Your task to perform on an android device: turn on javascript in the chrome app Image 0: 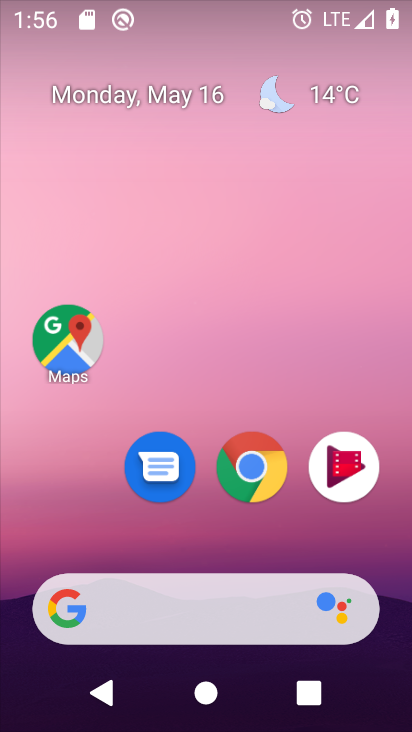
Step 0: click (248, 458)
Your task to perform on an android device: turn on javascript in the chrome app Image 1: 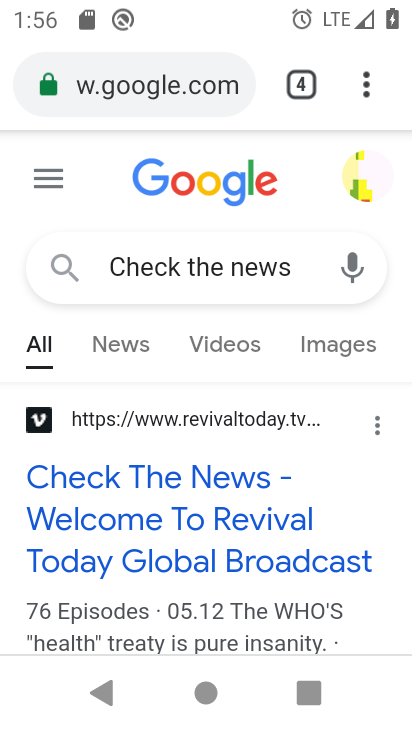
Step 1: click (346, 73)
Your task to perform on an android device: turn on javascript in the chrome app Image 2: 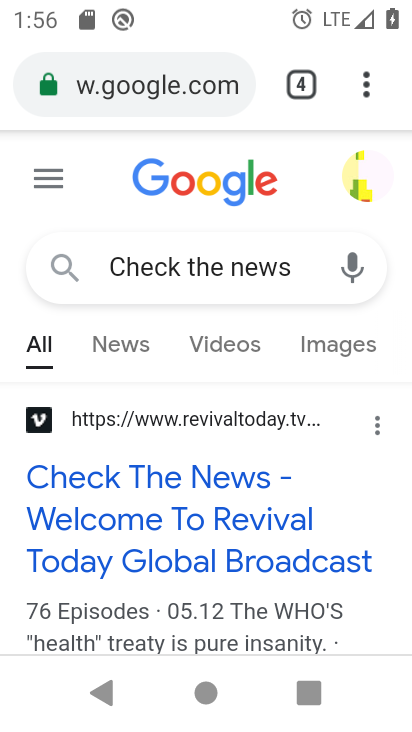
Step 2: click (343, 78)
Your task to perform on an android device: turn on javascript in the chrome app Image 3: 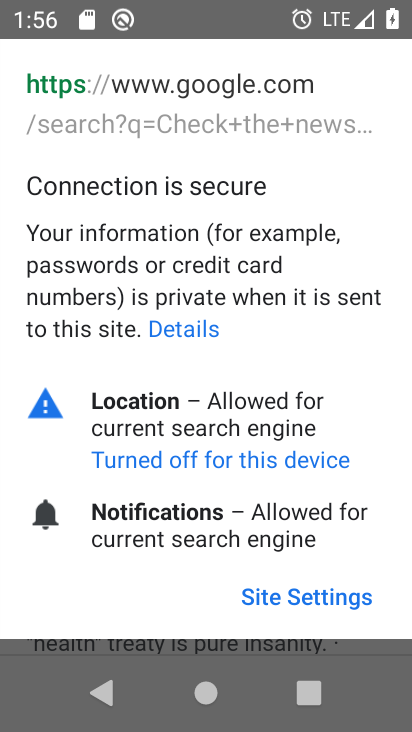
Step 3: press back button
Your task to perform on an android device: turn on javascript in the chrome app Image 4: 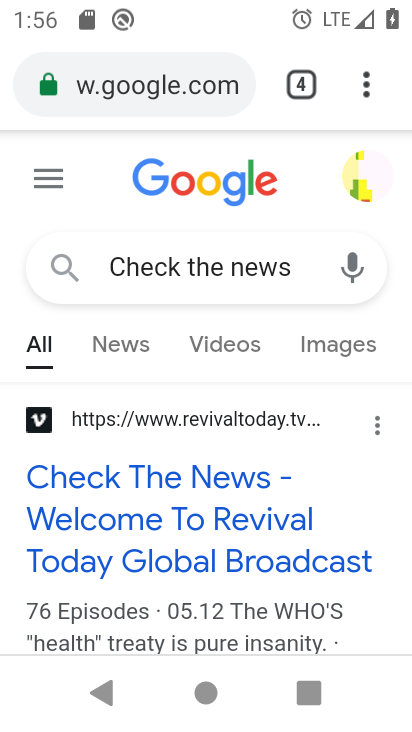
Step 4: click (376, 75)
Your task to perform on an android device: turn on javascript in the chrome app Image 5: 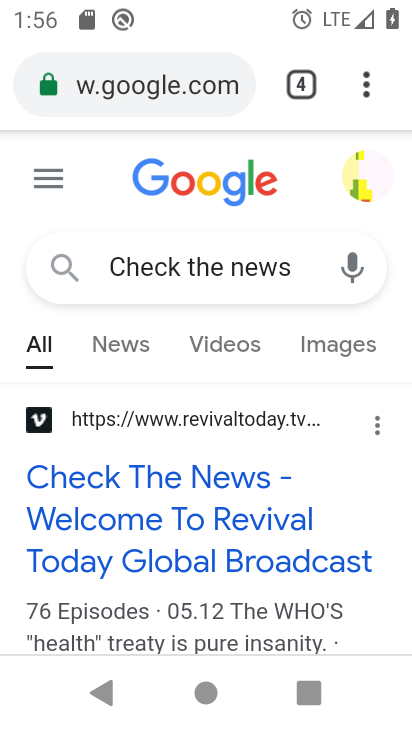
Step 5: click (386, 78)
Your task to perform on an android device: turn on javascript in the chrome app Image 6: 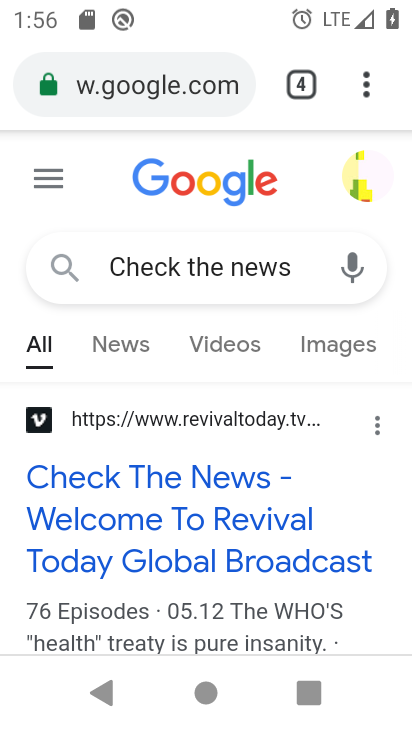
Step 6: click (336, 75)
Your task to perform on an android device: turn on javascript in the chrome app Image 7: 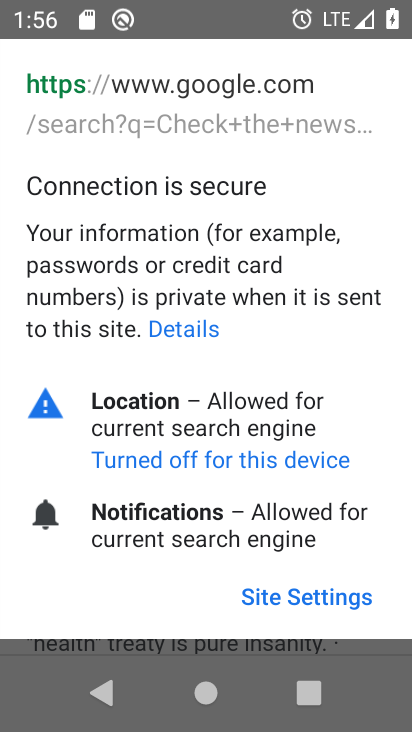
Step 7: press back button
Your task to perform on an android device: turn on javascript in the chrome app Image 8: 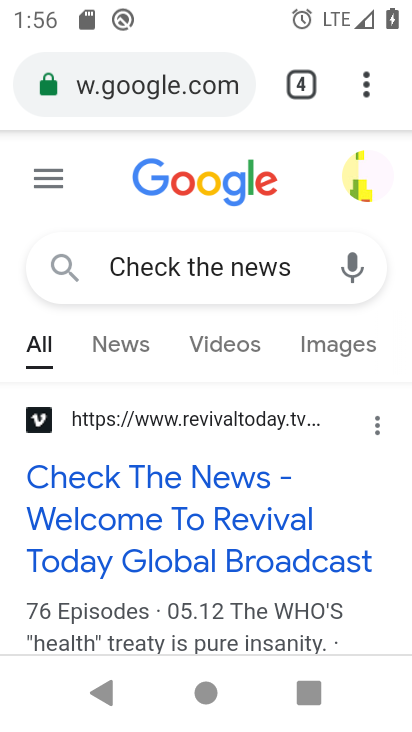
Step 8: click (347, 83)
Your task to perform on an android device: turn on javascript in the chrome app Image 9: 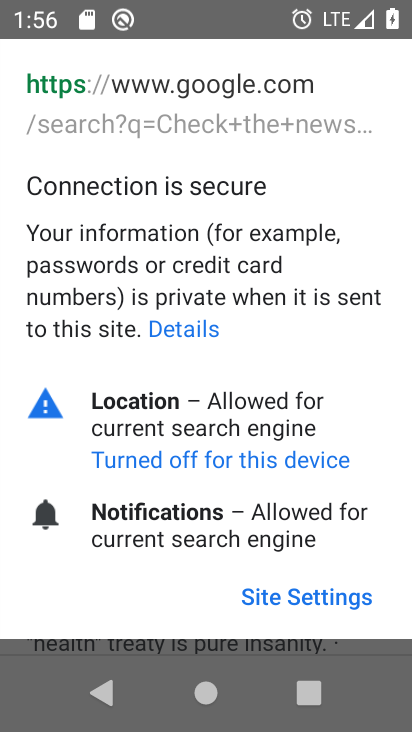
Step 9: press back button
Your task to perform on an android device: turn on javascript in the chrome app Image 10: 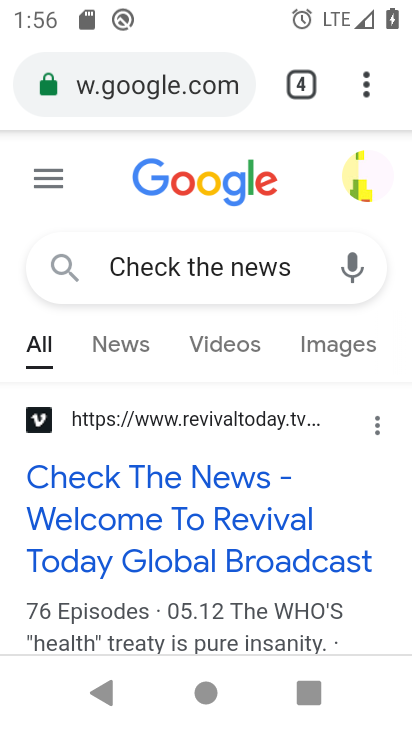
Step 10: click (376, 85)
Your task to perform on an android device: turn on javascript in the chrome app Image 11: 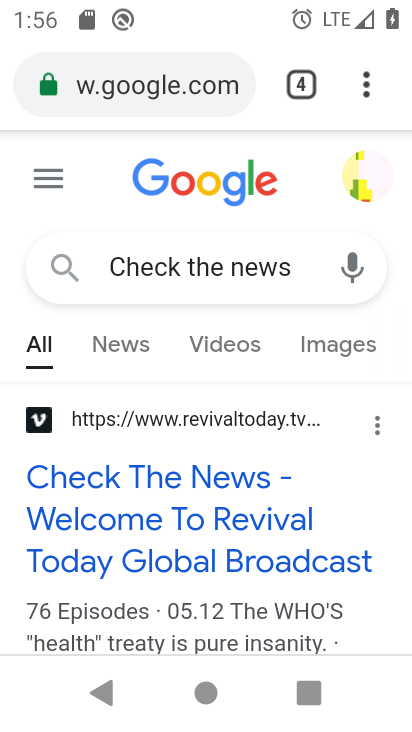
Step 11: click (376, 85)
Your task to perform on an android device: turn on javascript in the chrome app Image 12: 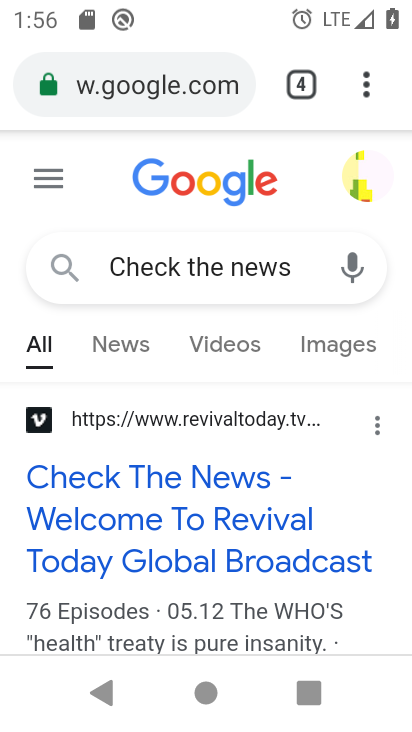
Step 12: click (362, 84)
Your task to perform on an android device: turn on javascript in the chrome app Image 13: 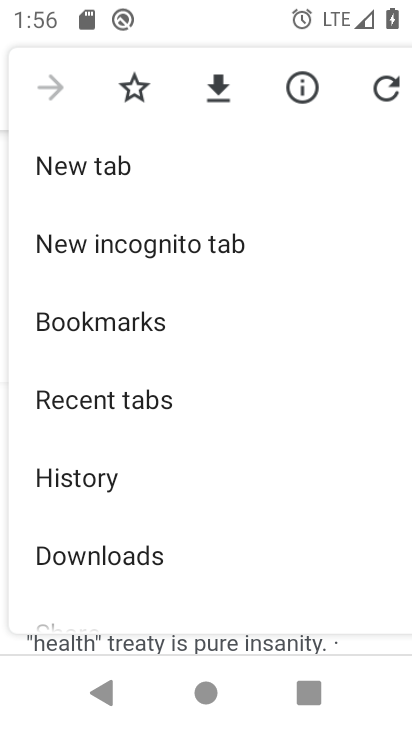
Step 13: drag from (197, 542) to (256, 207)
Your task to perform on an android device: turn on javascript in the chrome app Image 14: 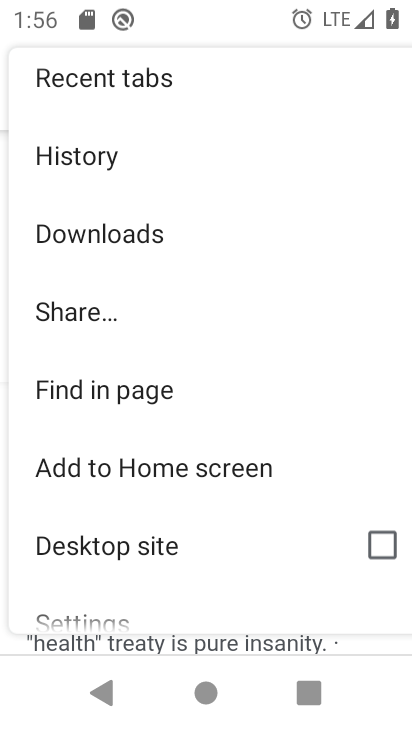
Step 14: drag from (123, 548) to (208, 302)
Your task to perform on an android device: turn on javascript in the chrome app Image 15: 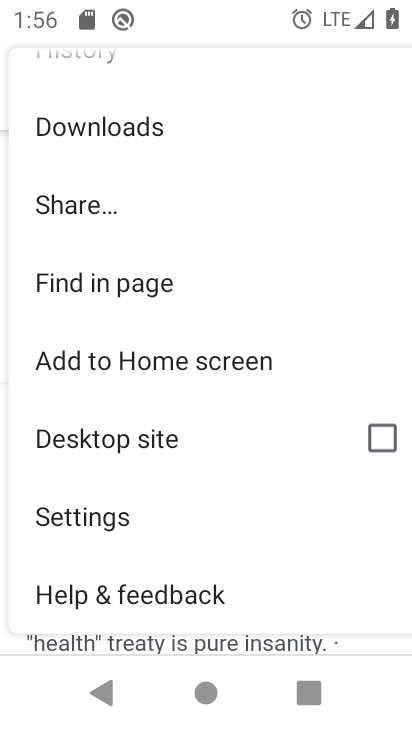
Step 15: click (153, 507)
Your task to perform on an android device: turn on javascript in the chrome app Image 16: 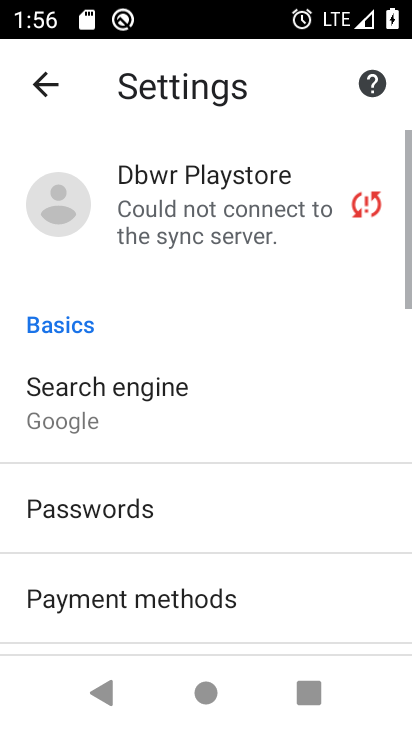
Step 16: drag from (251, 546) to (335, 194)
Your task to perform on an android device: turn on javascript in the chrome app Image 17: 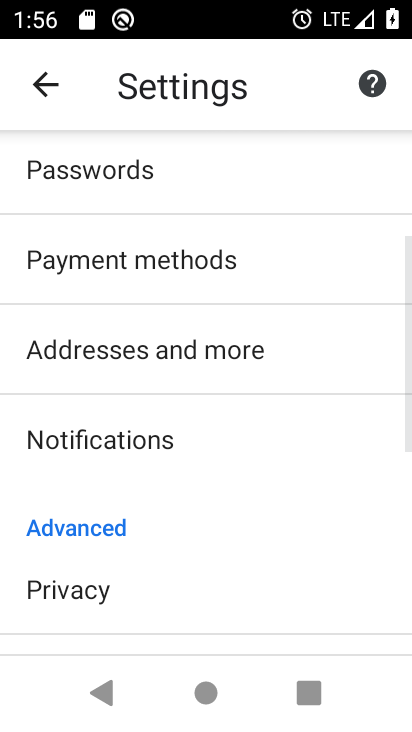
Step 17: drag from (201, 536) to (276, 271)
Your task to perform on an android device: turn on javascript in the chrome app Image 18: 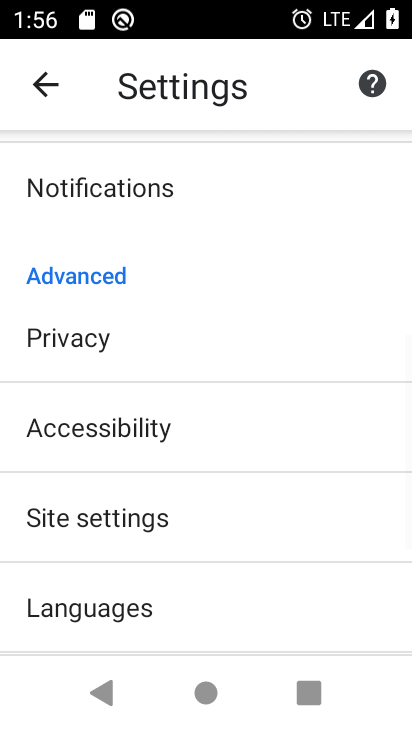
Step 18: drag from (156, 576) to (229, 388)
Your task to perform on an android device: turn on javascript in the chrome app Image 19: 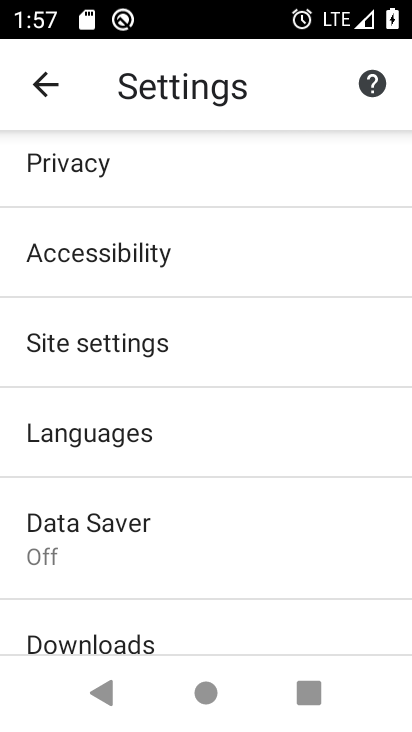
Step 19: drag from (178, 589) to (197, 479)
Your task to perform on an android device: turn on javascript in the chrome app Image 20: 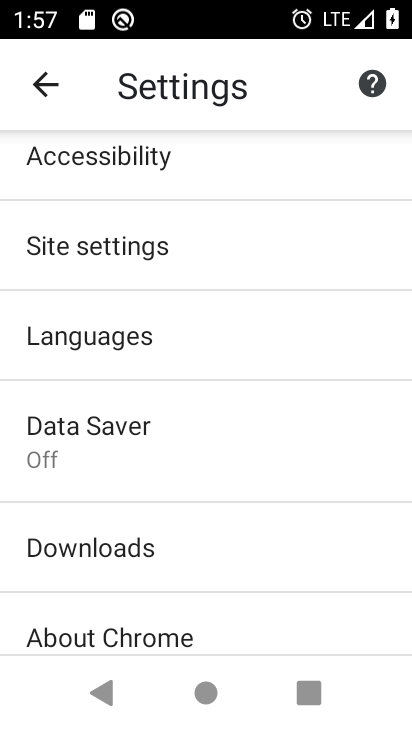
Step 20: click (188, 233)
Your task to perform on an android device: turn on javascript in the chrome app Image 21: 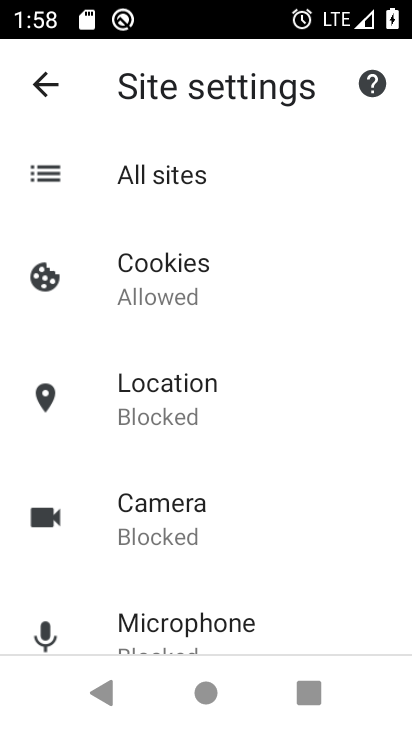
Step 21: task complete